Your task to perform on an android device: Show me productivity apps on the Play Store Image 0: 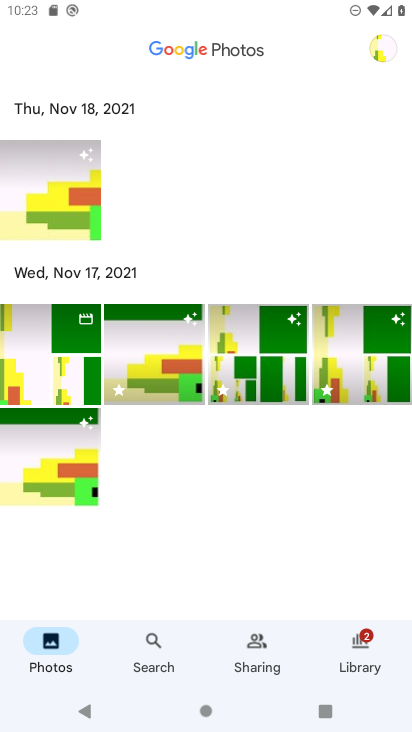
Step 0: press home button
Your task to perform on an android device: Show me productivity apps on the Play Store Image 1: 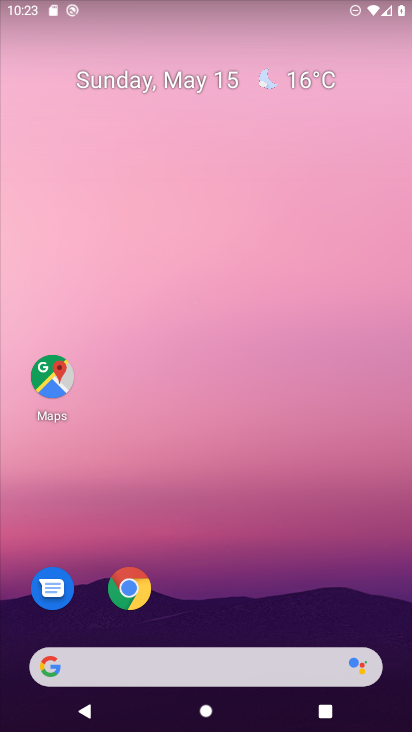
Step 1: drag from (213, 634) to (315, 168)
Your task to perform on an android device: Show me productivity apps on the Play Store Image 2: 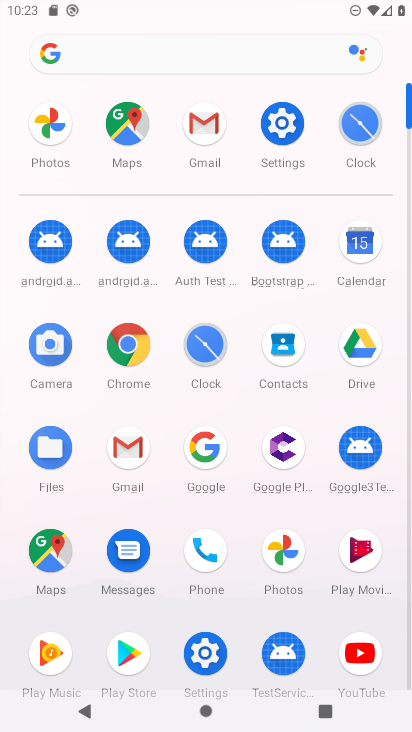
Step 2: click (133, 667)
Your task to perform on an android device: Show me productivity apps on the Play Store Image 3: 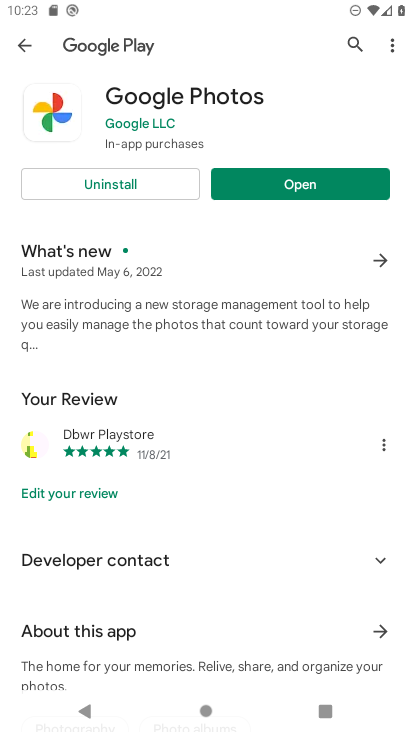
Step 3: click (22, 45)
Your task to perform on an android device: Show me productivity apps on the Play Store Image 4: 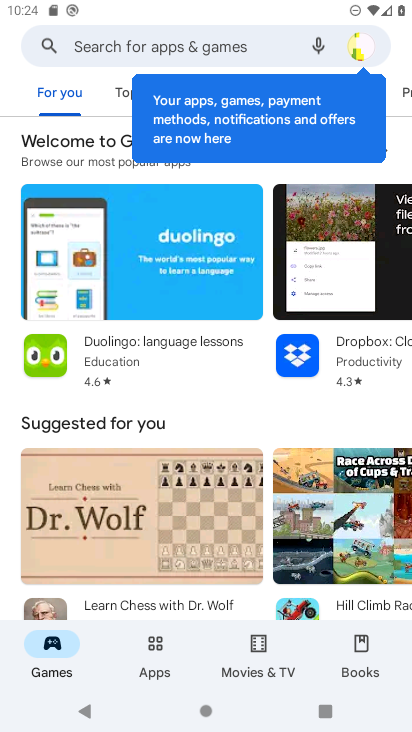
Step 4: click (161, 662)
Your task to perform on an android device: Show me productivity apps on the Play Store Image 5: 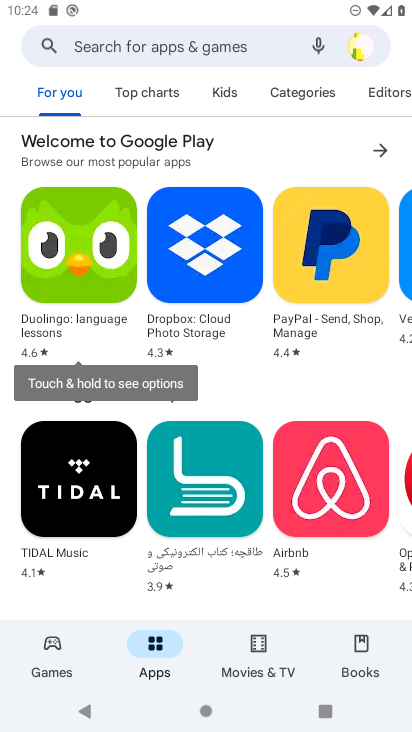
Step 5: click (335, 94)
Your task to perform on an android device: Show me productivity apps on the Play Store Image 6: 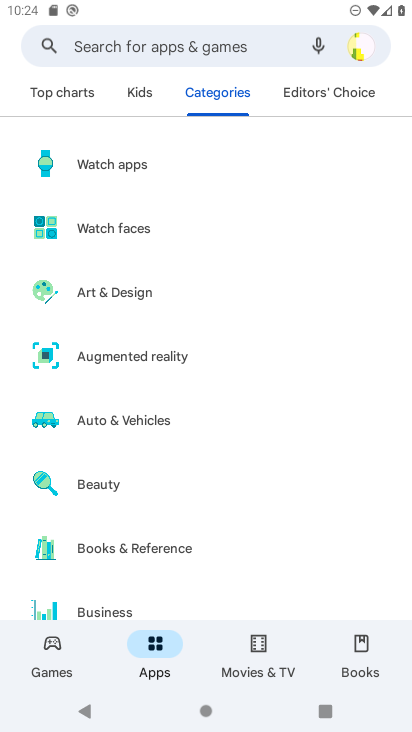
Step 6: drag from (186, 428) to (242, 38)
Your task to perform on an android device: Show me productivity apps on the Play Store Image 7: 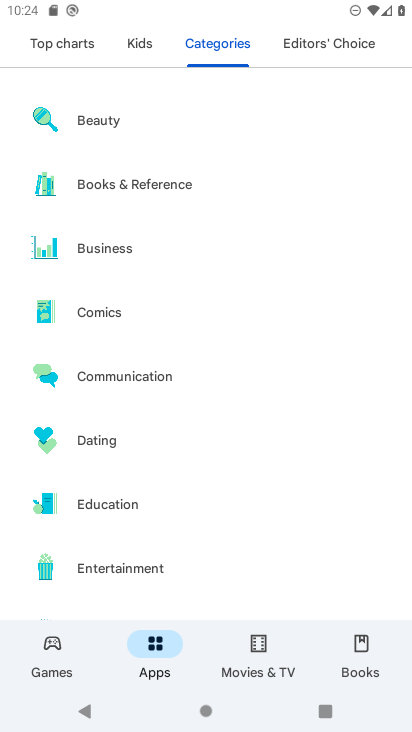
Step 7: drag from (179, 577) to (243, 70)
Your task to perform on an android device: Show me productivity apps on the Play Store Image 8: 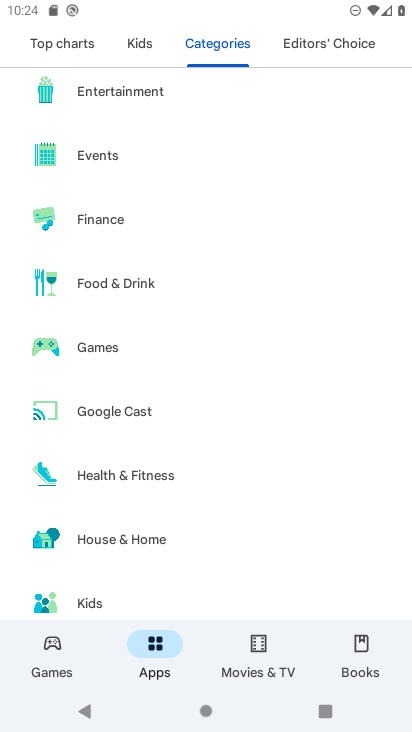
Step 8: drag from (144, 560) to (222, 52)
Your task to perform on an android device: Show me productivity apps on the Play Store Image 9: 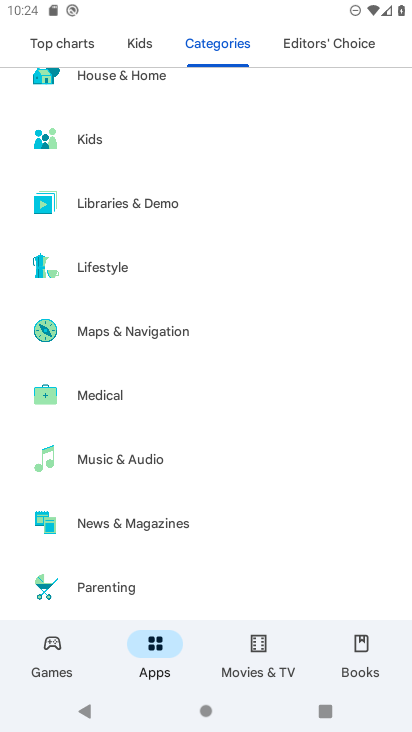
Step 9: drag from (141, 582) to (209, 77)
Your task to perform on an android device: Show me productivity apps on the Play Store Image 10: 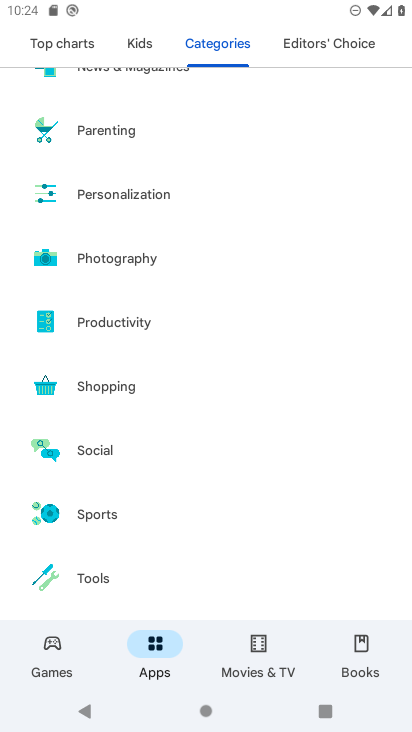
Step 10: click (127, 321)
Your task to perform on an android device: Show me productivity apps on the Play Store Image 11: 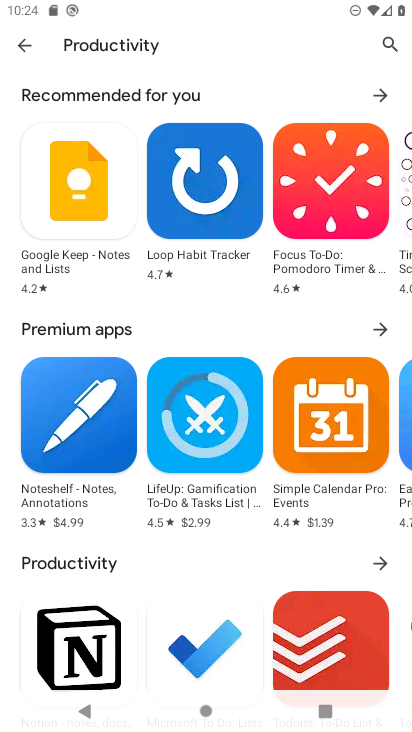
Step 11: task complete